Your task to perform on an android device: When is my next meeting? Image 0: 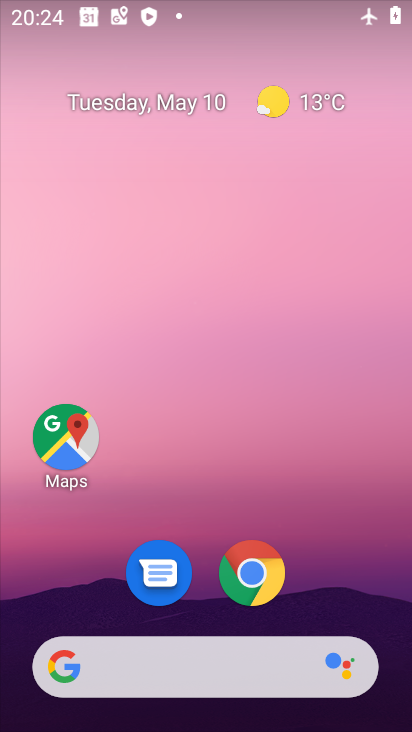
Step 0: drag from (337, 571) to (349, 27)
Your task to perform on an android device: When is my next meeting? Image 1: 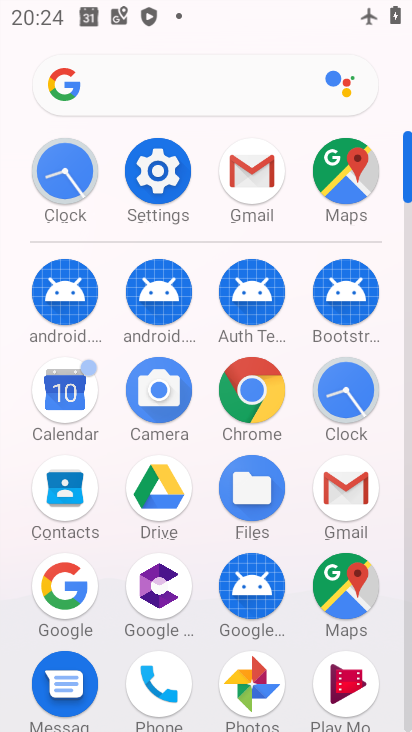
Step 1: click (61, 405)
Your task to perform on an android device: When is my next meeting? Image 2: 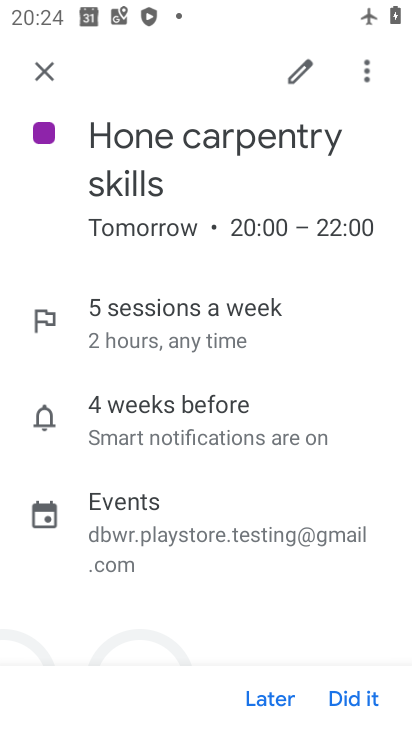
Step 2: click (45, 79)
Your task to perform on an android device: When is my next meeting? Image 3: 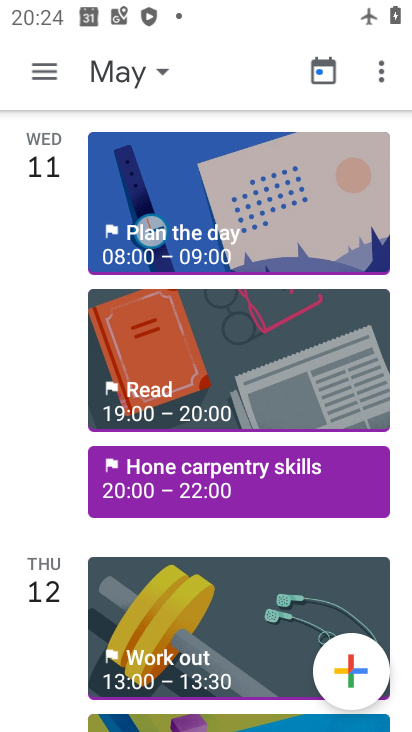
Step 3: drag from (199, 246) to (166, 619)
Your task to perform on an android device: When is my next meeting? Image 4: 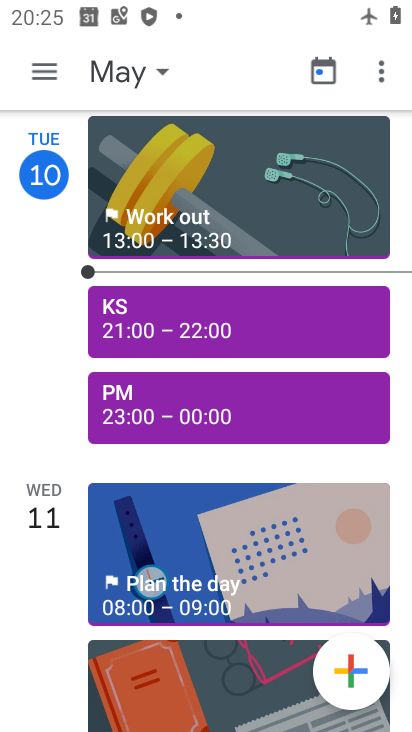
Step 4: click (169, 327)
Your task to perform on an android device: When is my next meeting? Image 5: 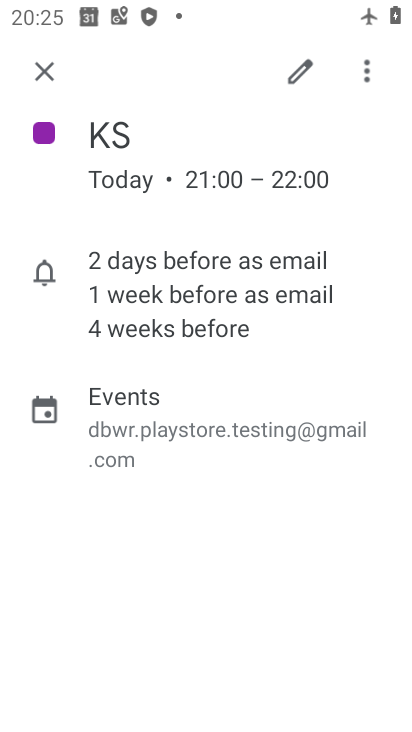
Step 5: task complete